Your task to perform on an android device: turn off sleep mode Image 0: 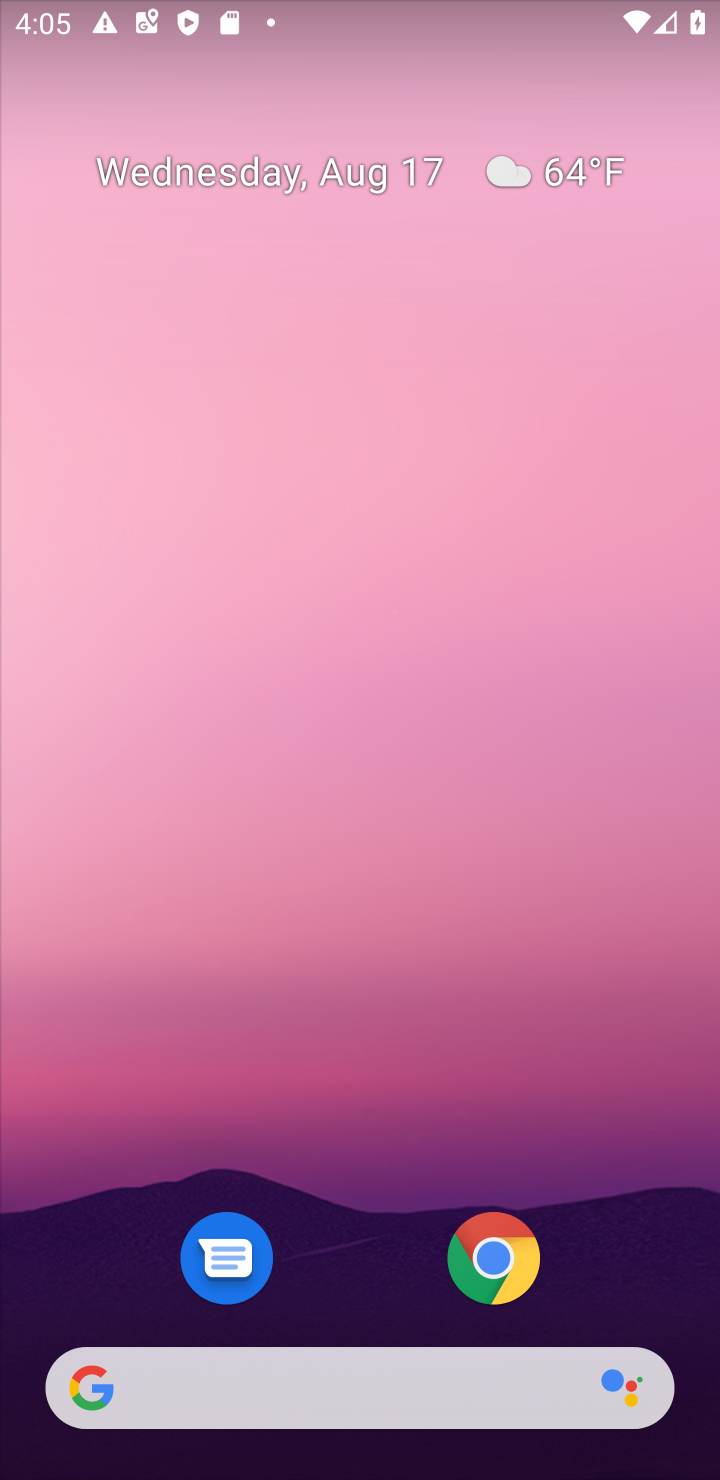
Step 0: drag from (593, 1141) to (534, 598)
Your task to perform on an android device: turn off sleep mode Image 1: 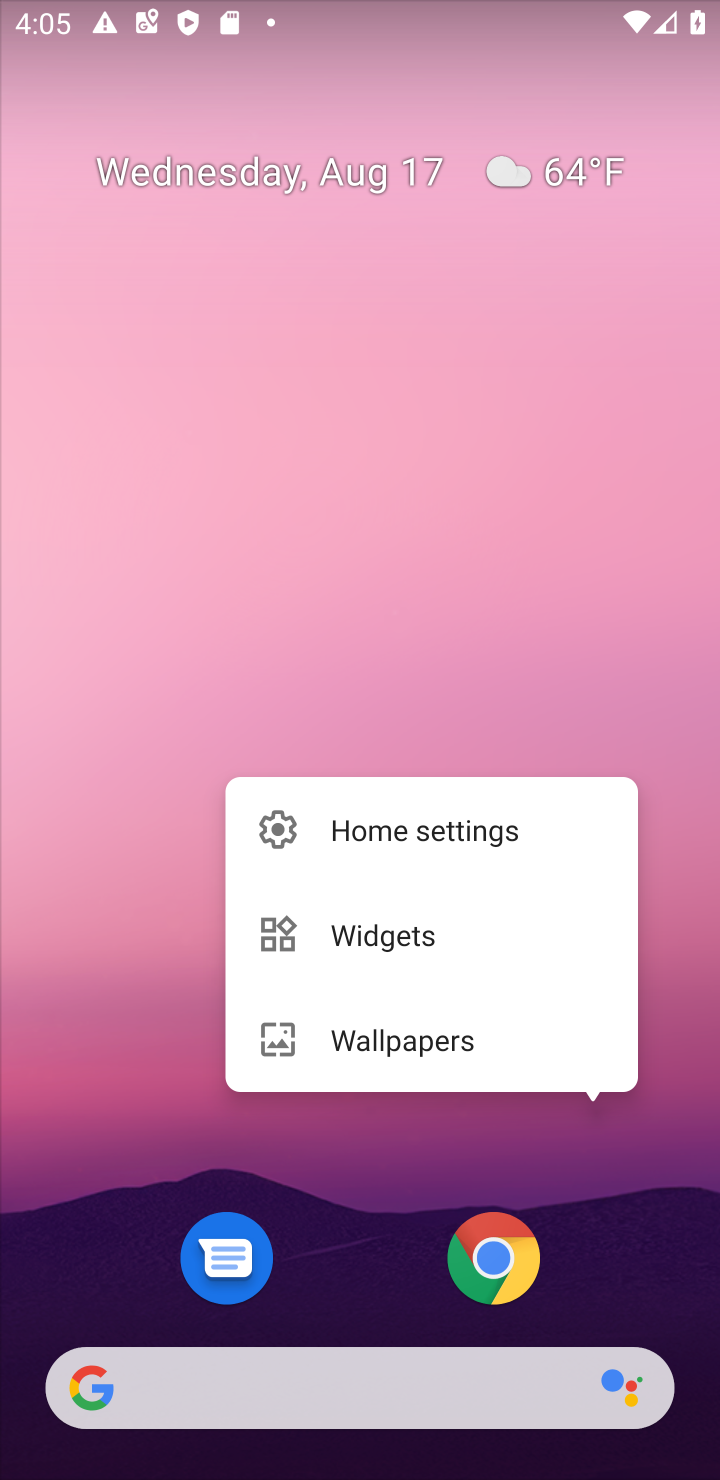
Step 1: click (558, 636)
Your task to perform on an android device: turn off sleep mode Image 2: 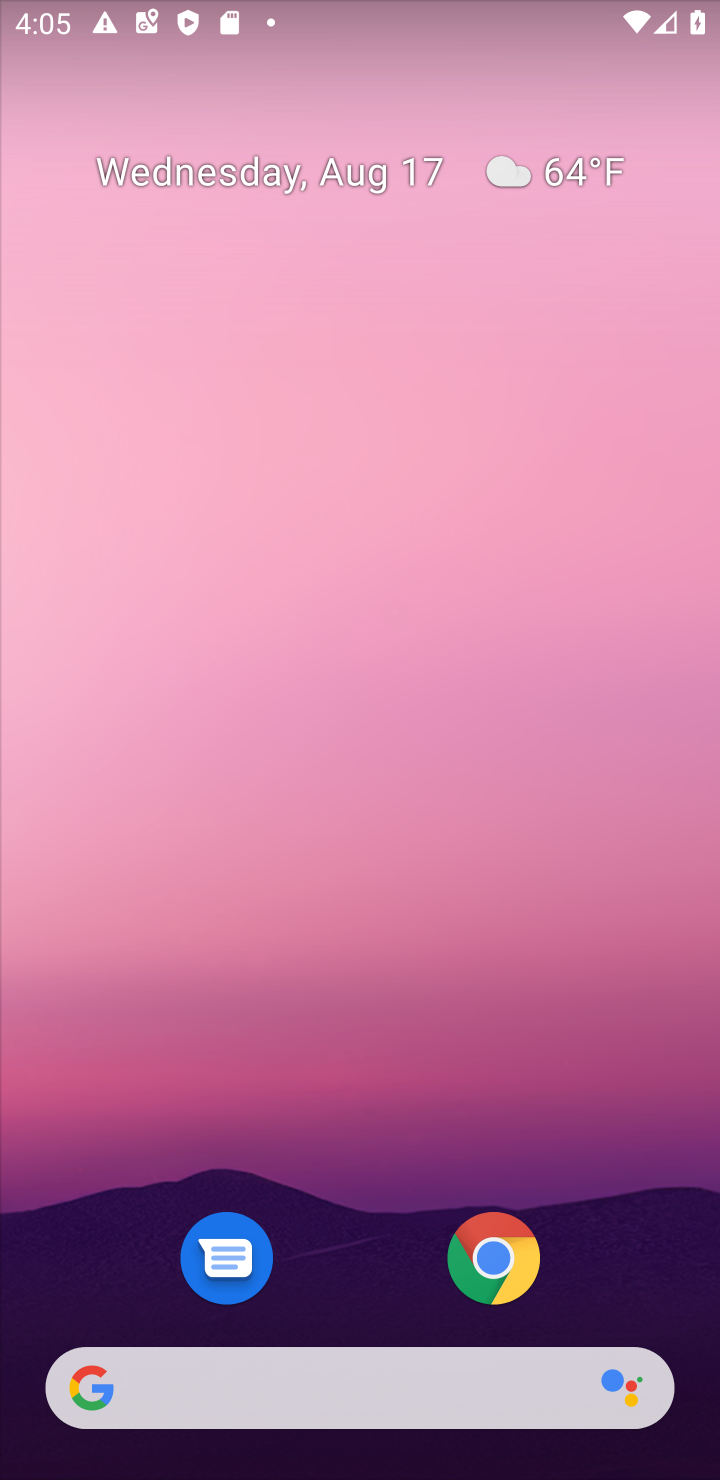
Step 2: drag from (583, 965) to (572, 77)
Your task to perform on an android device: turn off sleep mode Image 3: 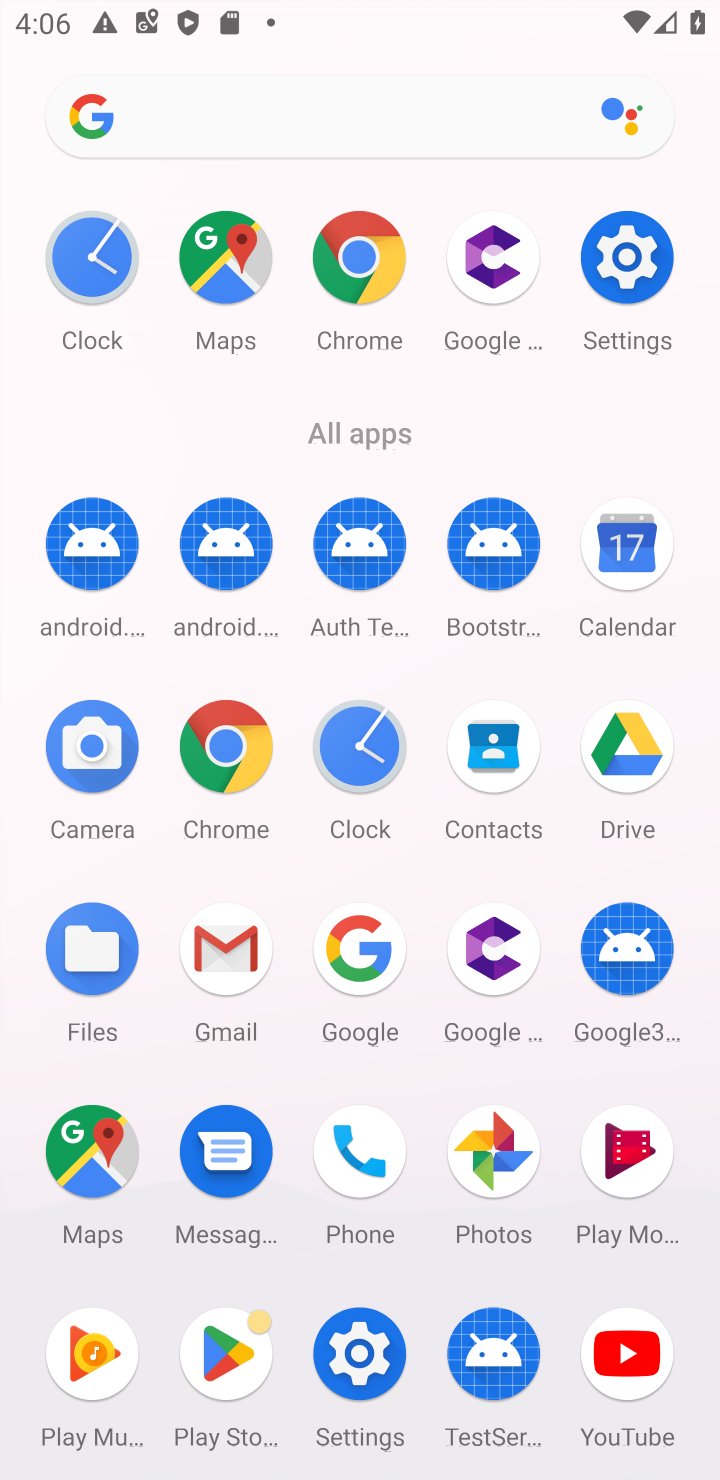
Step 3: click (366, 1360)
Your task to perform on an android device: turn off sleep mode Image 4: 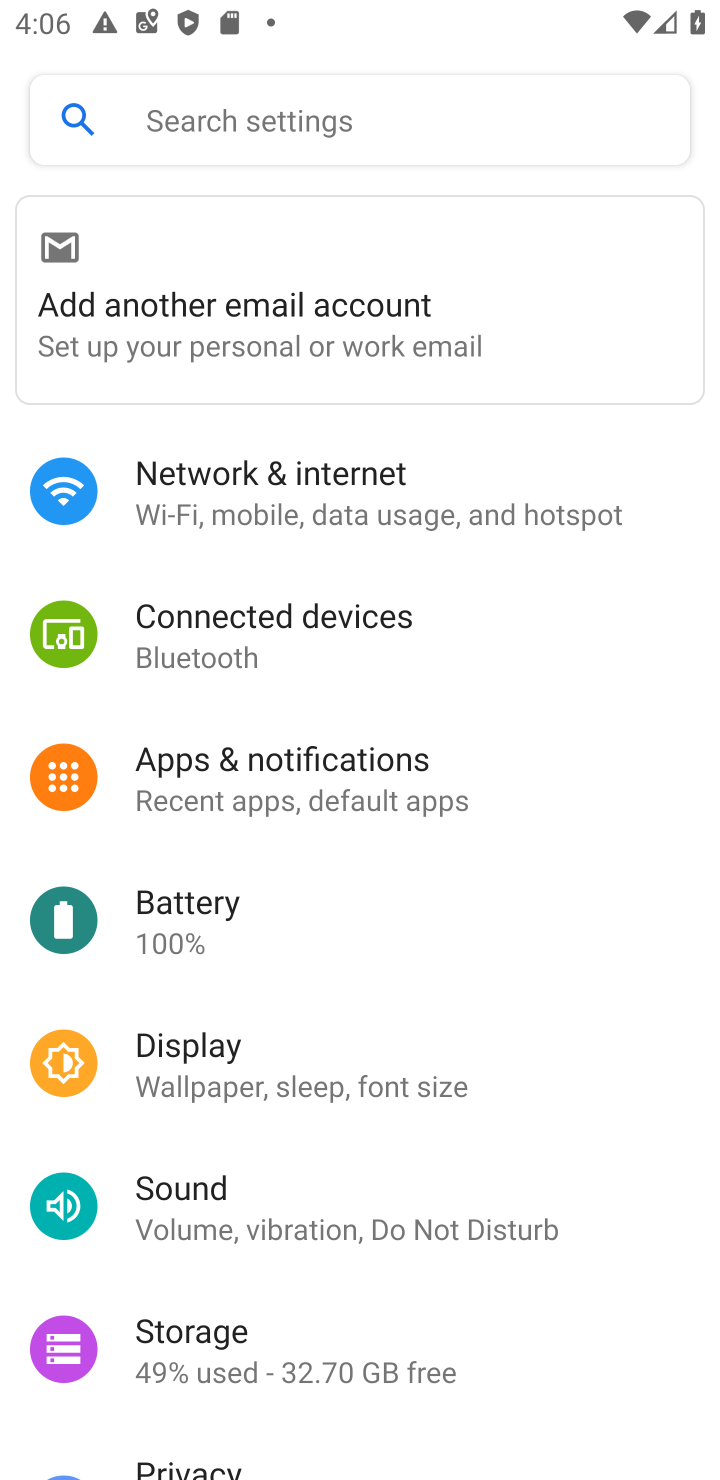
Step 4: click (322, 1071)
Your task to perform on an android device: turn off sleep mode Image 5: 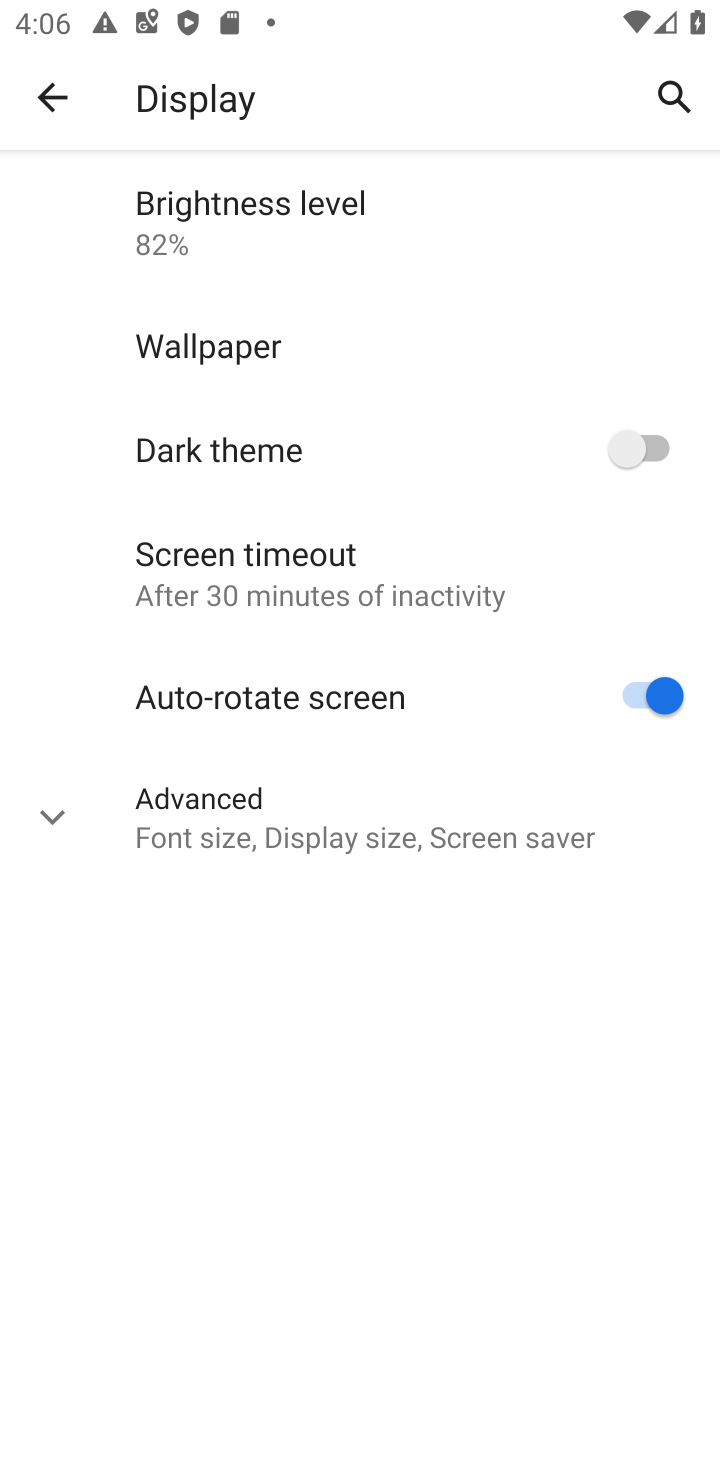
Step 5: task complete